Your task to perform on an android device: toggle airplane mode Image 0: 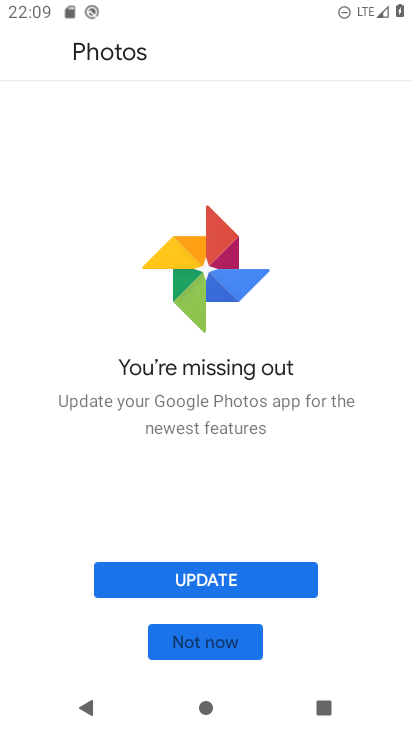
Step 0: press home button
Your task to perform on an android device: toggle airplane mode Image 1: 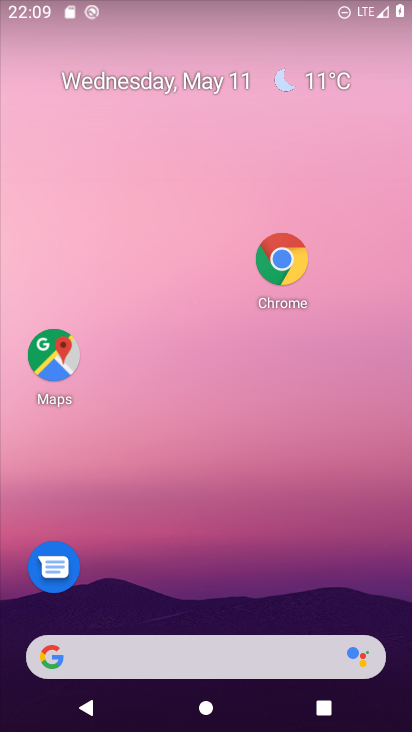
Step 1: drag from (148, 634) to (252, 54)
Your task to perform on an android device: toggle airplane mode Image 2: 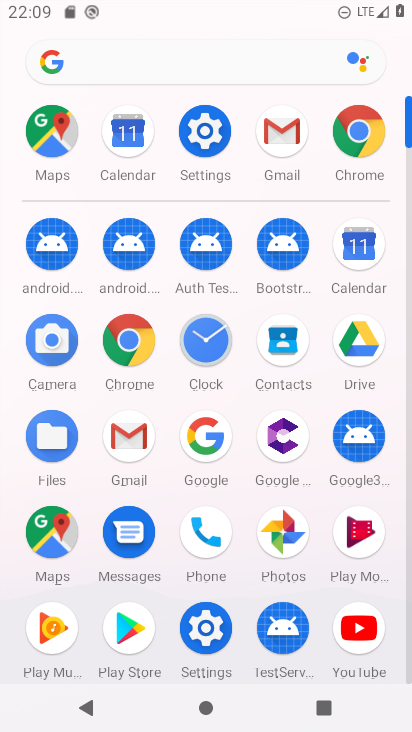
Step 2: click (212, 136)
Your task to perform on an android device: toggle airplane mode Image 3: 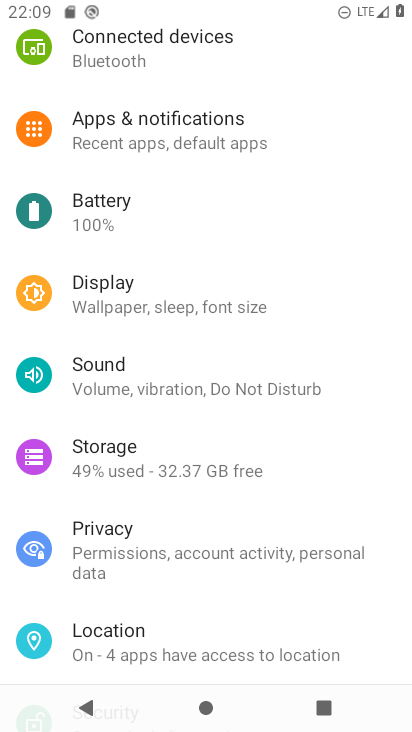
Step 3: drag from (297, 64) to (278, 525)
Your task to perform on an android device: toggle airplane mode Image 4: 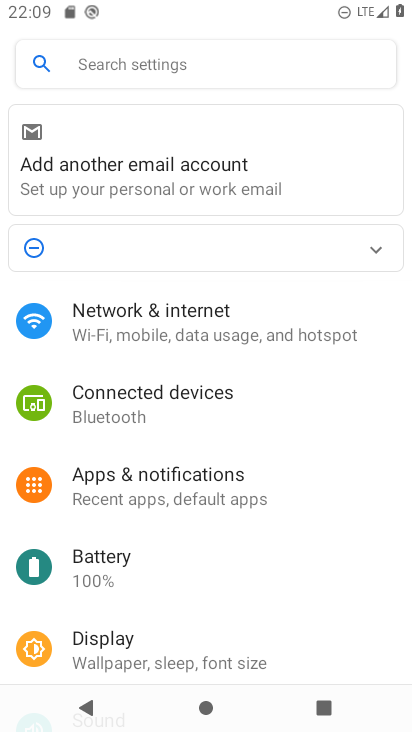
Step 4: click (226, 334)
Your task to perform on an android device: toggle airplane mode Image 5: 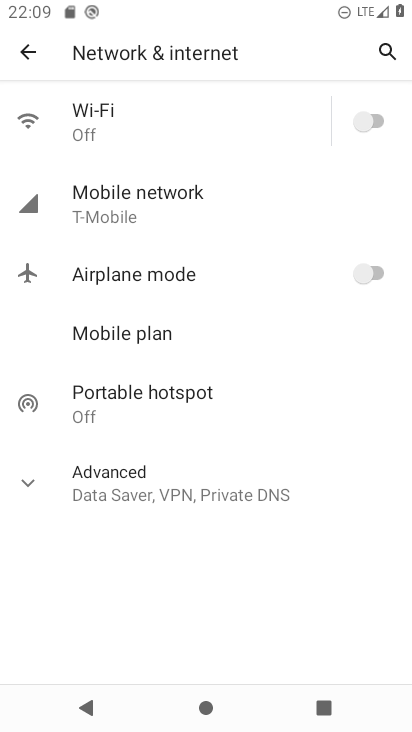
Step 5: click (375, 270)
Your task to perform on an android device: toggle airplane mode Image 6: 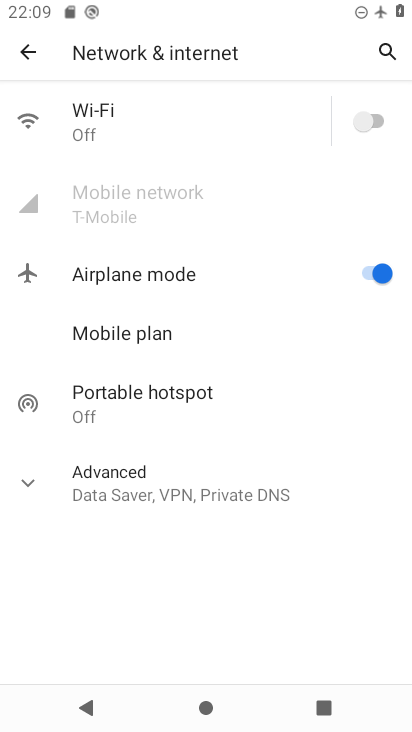
Step 6: task complete